Your task to perform on an android device: set the timer Image 0: 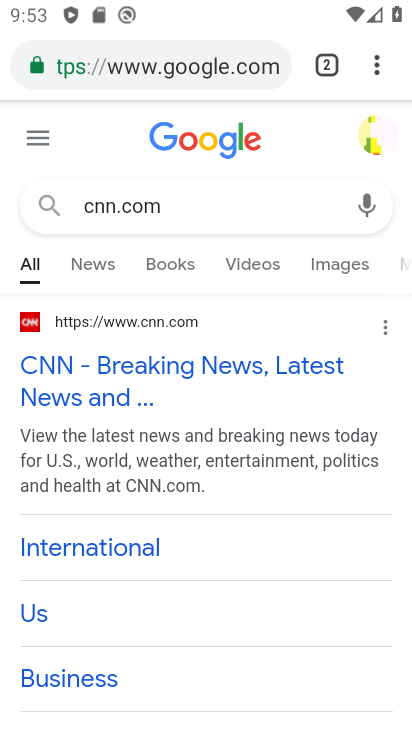
Step 0: press home button
Your task to perform on an android device: set the timer Image 1: 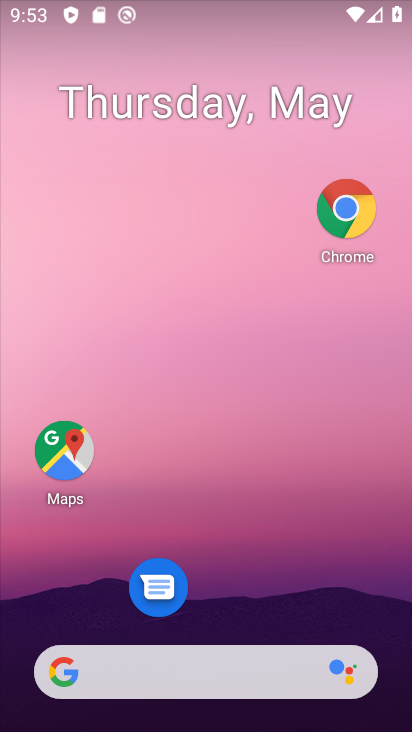
Step 1: drag from (328, 491) to (290, 164)
Your task to perform on an android device: set the timer Image 2: 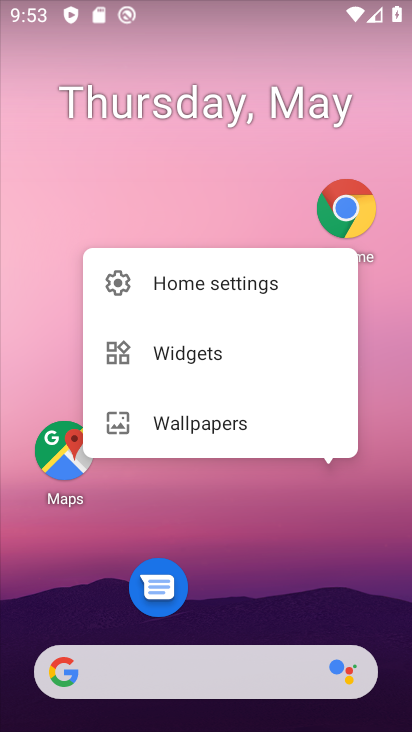
Step 2: click (253, 534)
Your task to perform on an android device: set the timer Image 3: 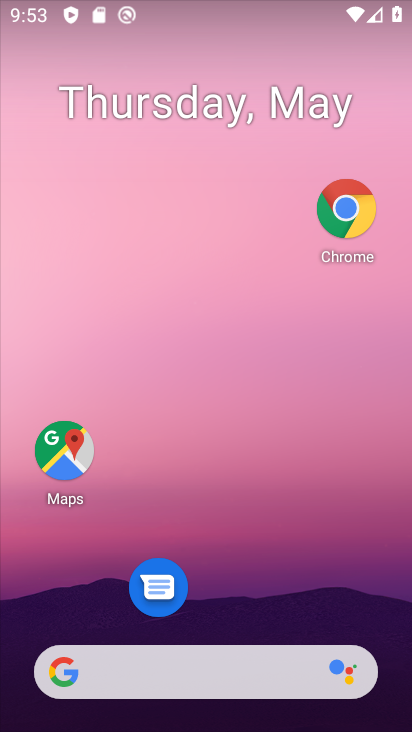
Step 3: drag from (255, 552) to (164, 13)
Your task to perform on an android device: set the timer Image 4: 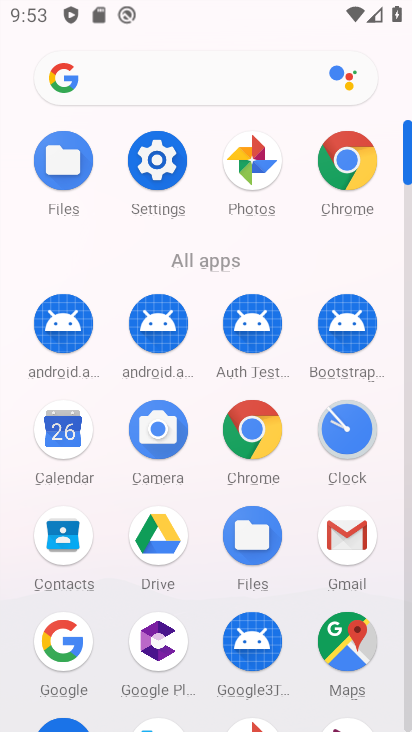
Step 4: click (361, 419)
Your task to perform on an android device: set the timer Image 5: 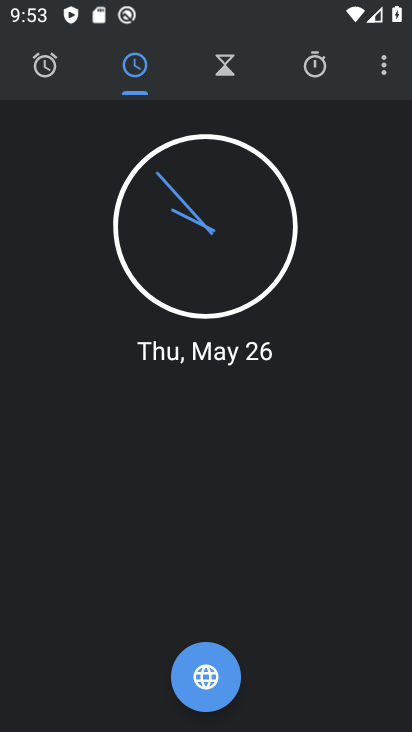
Step 5: click (221, 61)
Your task to perform on an android device: set the timer Image 6: 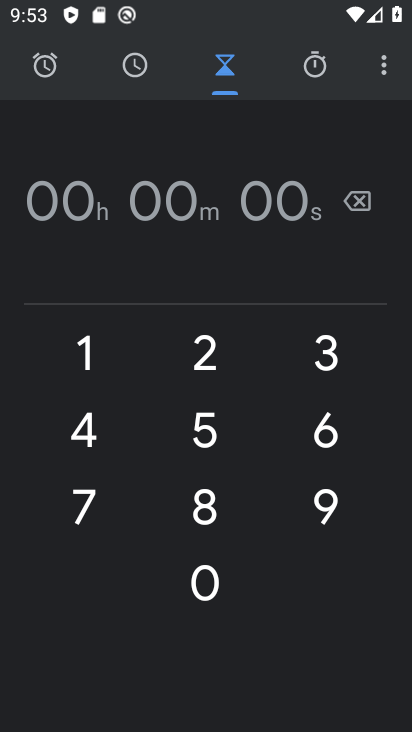
Step 6: click (221, 61)
Your task to perform on an android device: set the timer Image 7: 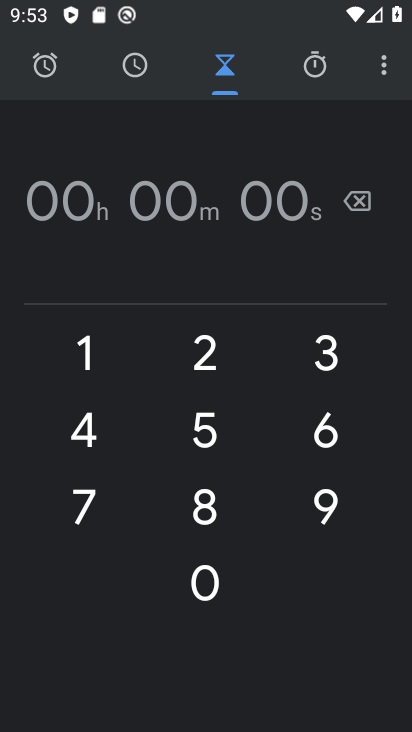
Step 7: click (189, 348)
Your task to perform on an android device: set the timer Image 8: 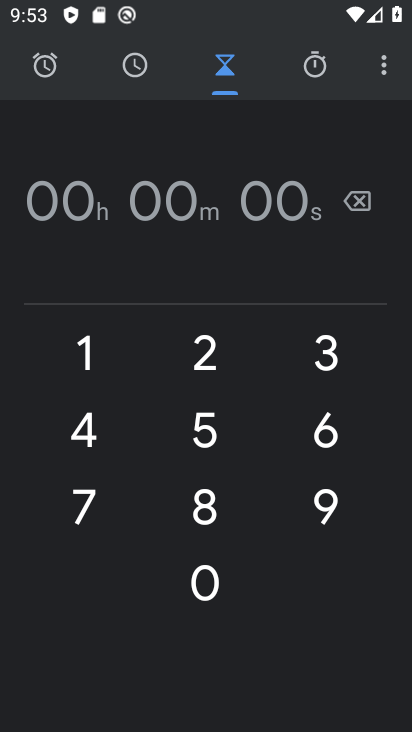
Step 8: click (189, 348)
Your task to perform on an android device: set the timer Image 9: 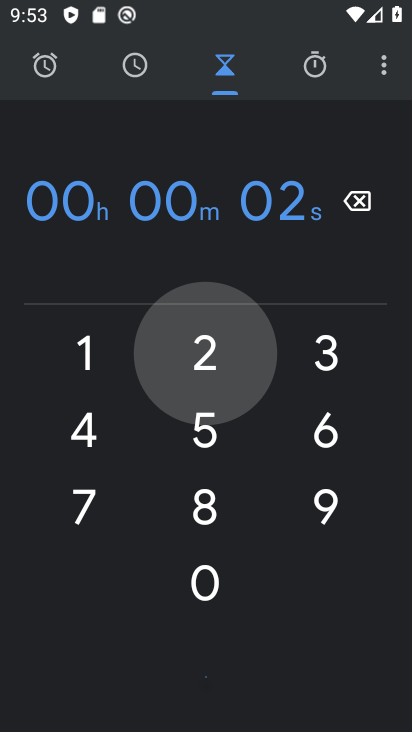
Step 9: click (189, 348)
Your task to perform on an android device: set the timer Image 10: 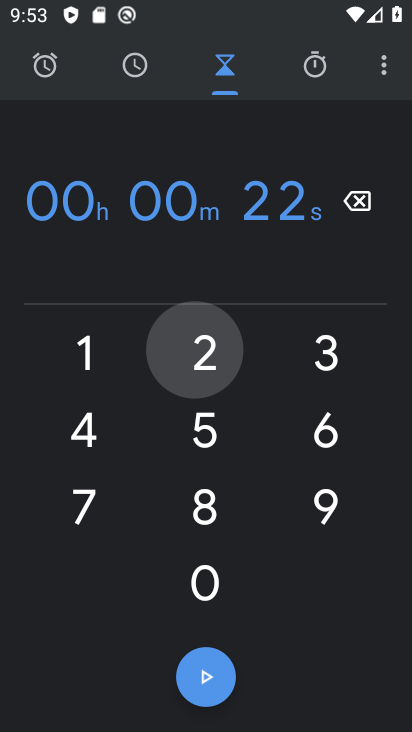
Step 10: click (189, 348)
Your task to perform on an android device: set the timer Image 11: 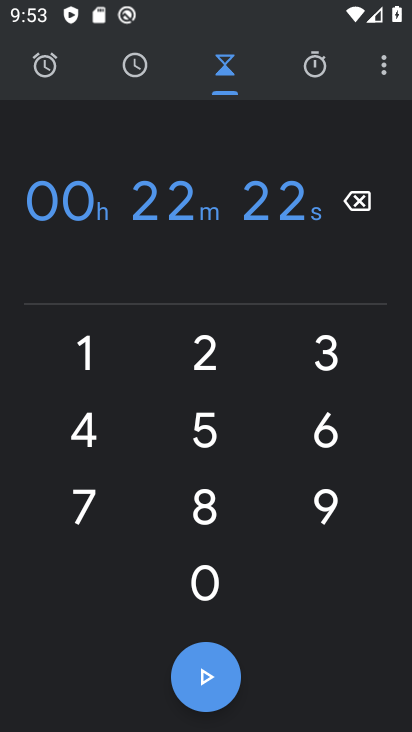
Step 11: click (189, 348)
Your task to perform on an android device: set the timer Image 12: 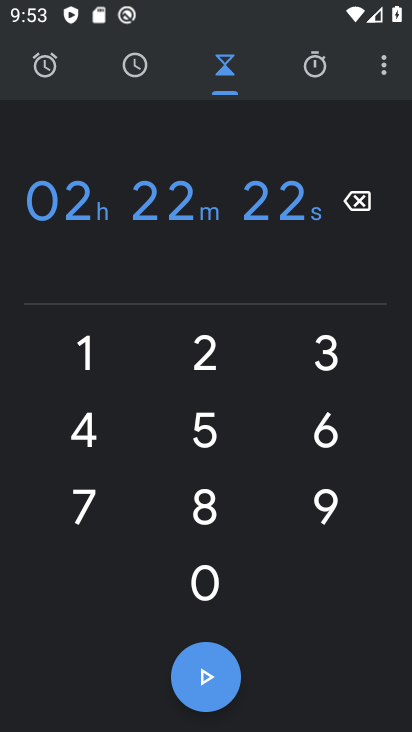
Step 12: task complete